Your task to perform on an android device: uninstall "Move to iOS" Image 0: 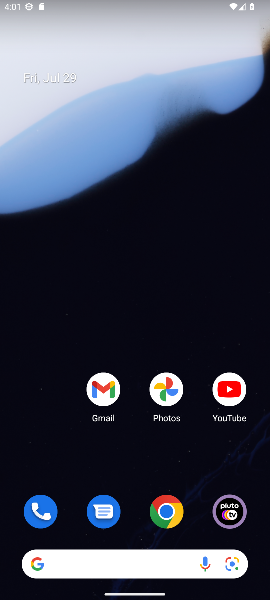
Step 0: drag from (136, 554) to (158, 295)
Your task to perform on an android device: uninstall "Move to iOS" Image 1: 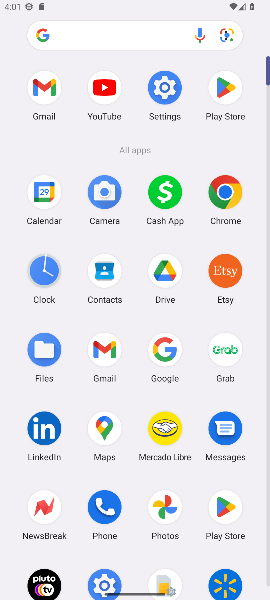
Step 1: click (231, 89)
Your task to perform on an android device: uninstall "Move to iOS" Image 2: 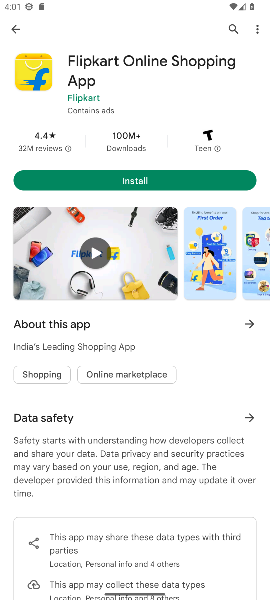
Step 2: click (13, 29)
Your task to perform on an android device: uninstall "Move to iOS" Image 3: 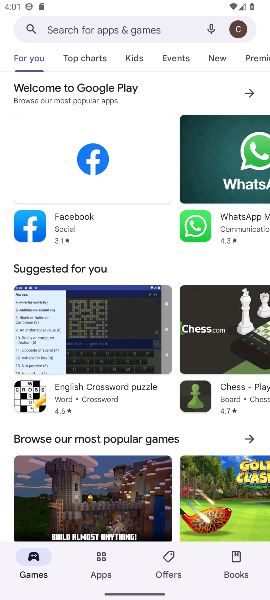
Step 3: click (141, 31)
Your task to perform on an android device: uninstall "Move to iOS" Image 4: 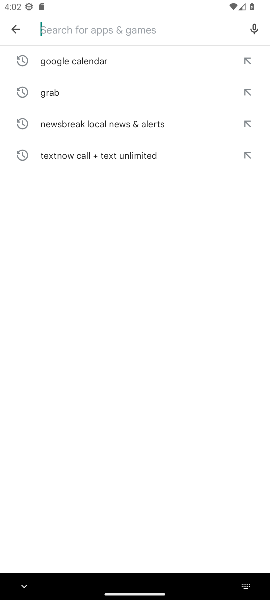
Step 4: type "Move to iOS"
Your task to perform on an android device: uninstall "Move to iOS" Image 5: 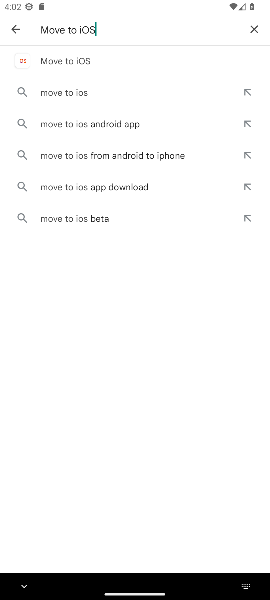
Step 5: click (85, 68)
Your task to perform on an android device: uninstall "Move to iOS" Image 6: 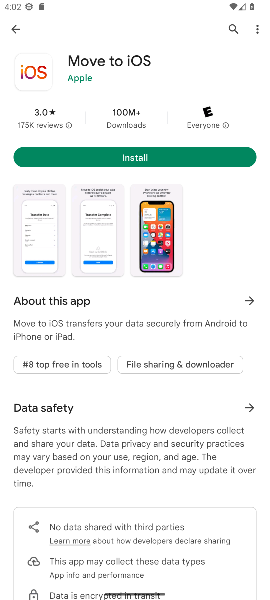
Step 6: task complete